Your task to perform on an android device: Open the web browser Image 0: 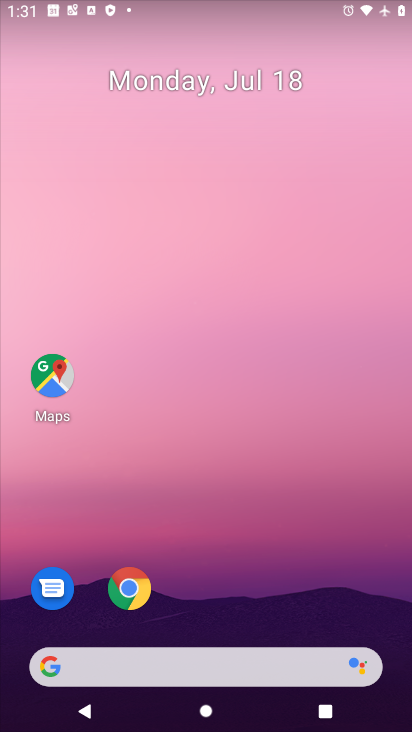
Step 0: drag from (203, 642) to (208, 197)
Your task to perform on an android device: Open the web browser Image 1: 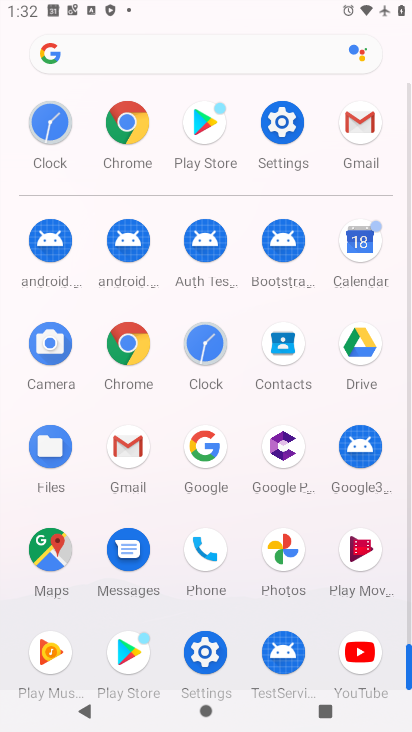
Step 1: click (129, 144)
Your task to perform on an android device: Open the web browser Image 2: 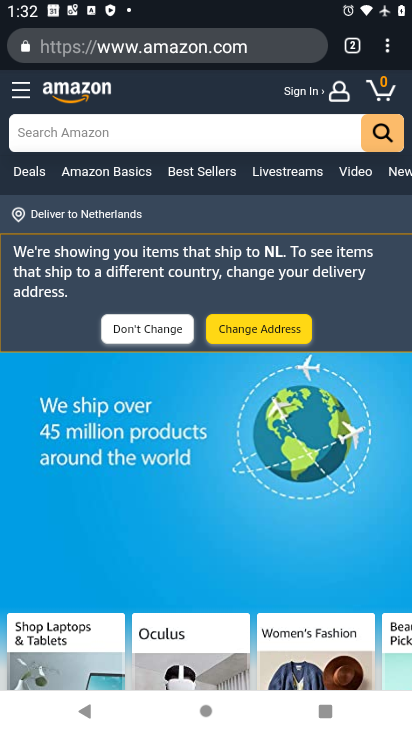
Step 2: task complete